Your task to perform on an android device: install app "Instagram" Image 0: 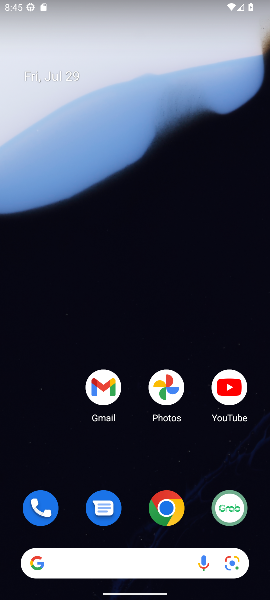
Step 0: drag from (133, 445) to (135, 2)
Your task to perform on an android device: install app "Instagram" Image 1: 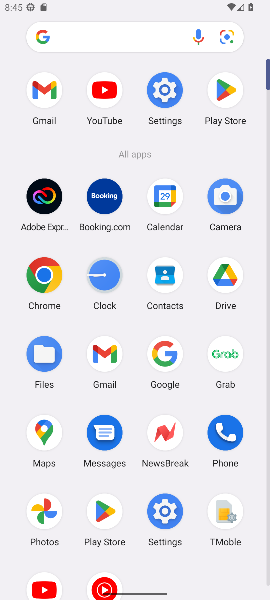
Step 1: click (223, 79)
Your task to perform on an android device: install app "Instagram" Image 2: 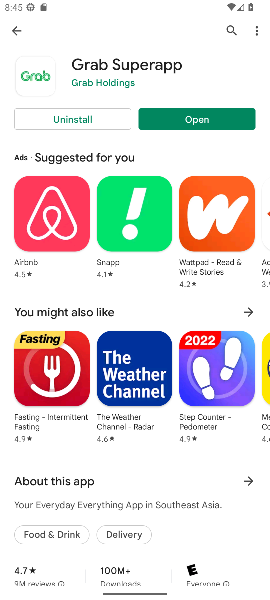
Step 2: click (234, 33)
Your task to perform on an android device: install app "Instagram" Image 3: 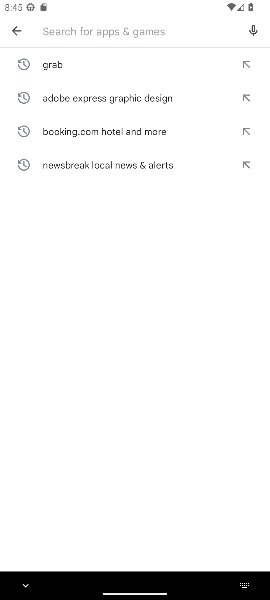
Step 3: type "Instagram"
Your task to perform on an android device: install app "Instagram" Image 4: 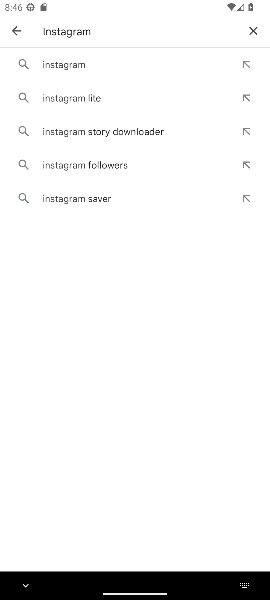
Step 4: click (122, 64)
Your task to perform on an android device: install app "Instagram" Image 5: 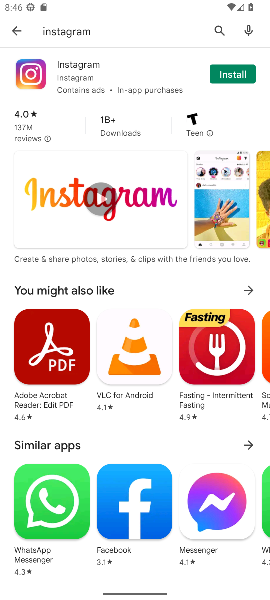
Step 5: click (122, 64)
Your task to perform on an android device: install app "Instagram" Image 6: 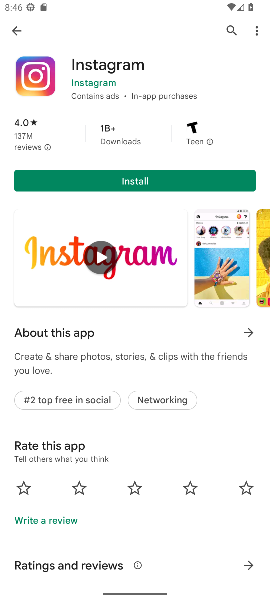
Step 6: click (141, 174)
Your task to perform on an android device: install app "Instagram" Image 7: 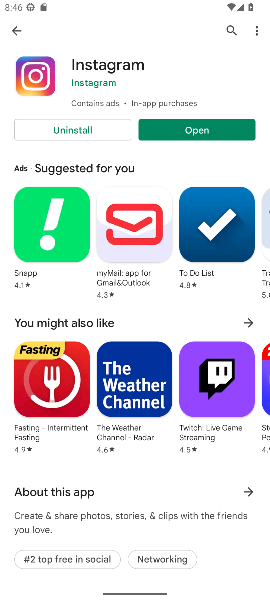
Step 7: task complete